Your task to perform on an android device: turn pop-ups off in chrome Image 0: 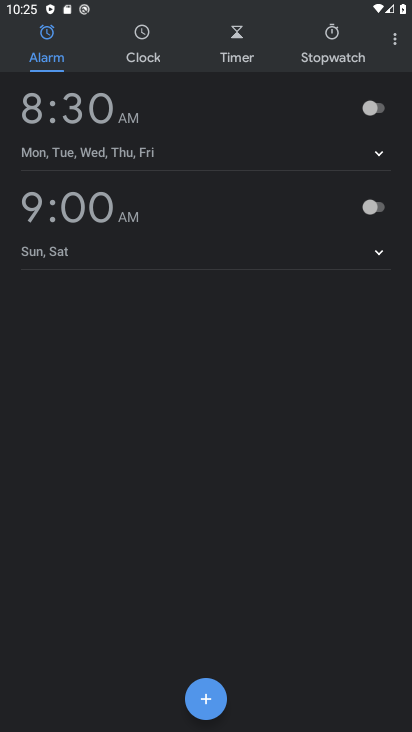
Step 0: press home button
Your task to perform on an android device: turn pop-ups off in chrome Image 1: 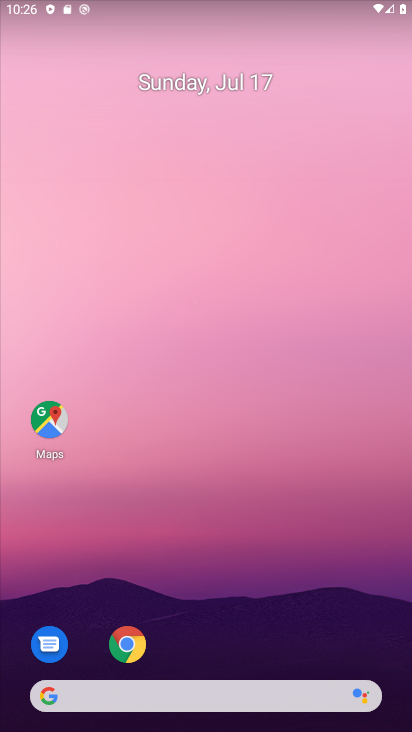
Step 1: drag from (170, 623) to (359, 4)
Your task to perform on an android device: turn pop-ups off in chrome Image 2: 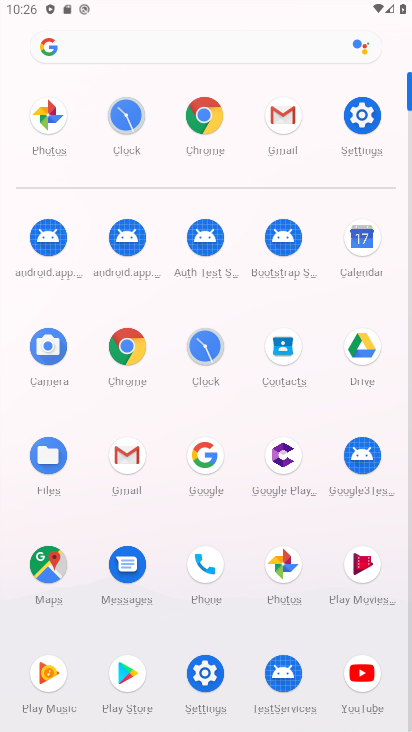
Step 2: click (197, 117)
Your task to perform on an android device: turn pop-ups off in chrome Image 3: 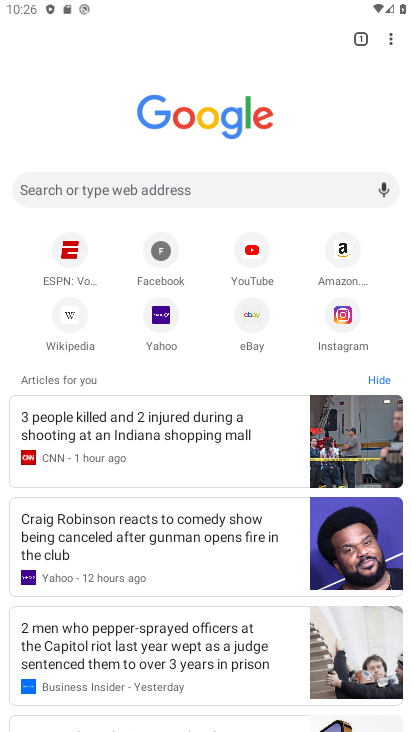
Step 3: drag from (393, 40) to (252, 332)
Your task to perform on an android device: turn pop-ups off in chrome Image 4: 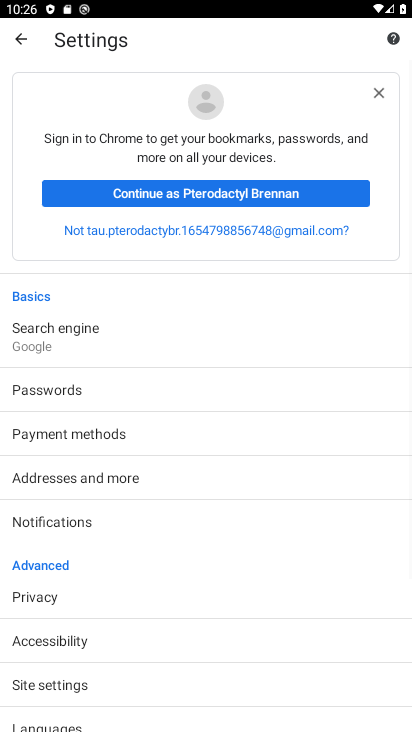
Step 4: drag from (134, 682) to (202, 174)
Your task to perform on an android device: turn pop-ups off in chrome Image 5: 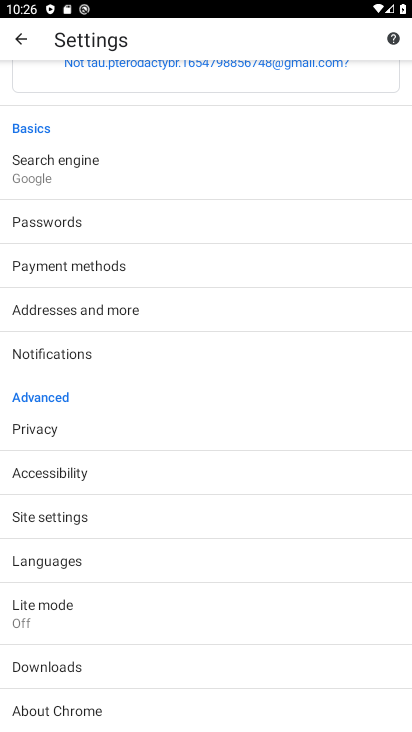
Step 5: click (27, 523)
Your task to perform on an android device: turn pop-ups off in chrome Image 6: 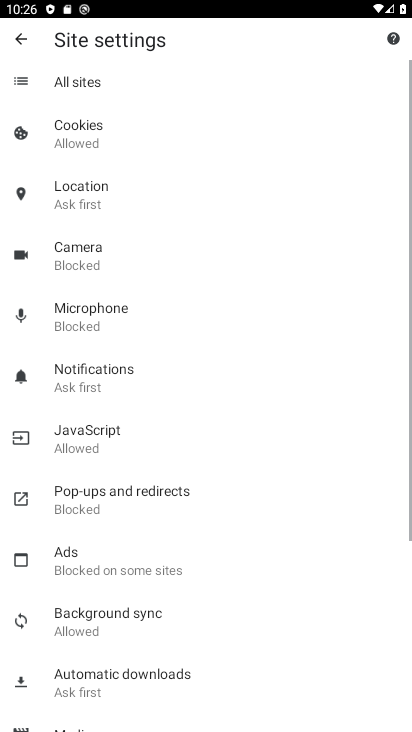
Step 6: click (36, 511)
Your task to perform on an android device: turn pop-ups off in chrome Image 7: 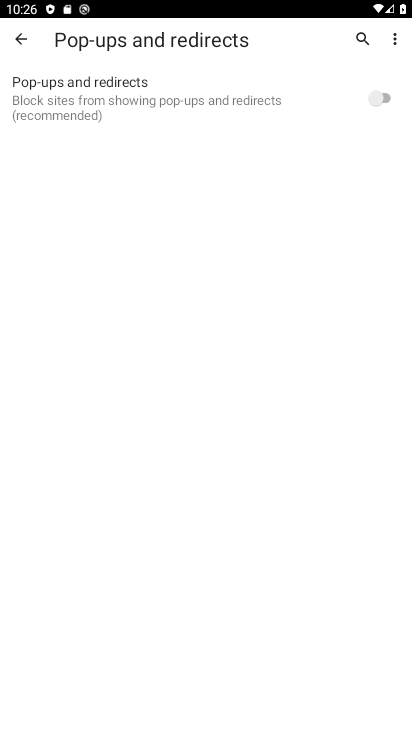
Step 7: task complete